Your task to perform on an android device: open the mobile data screen to see how much data has been used Image 0: 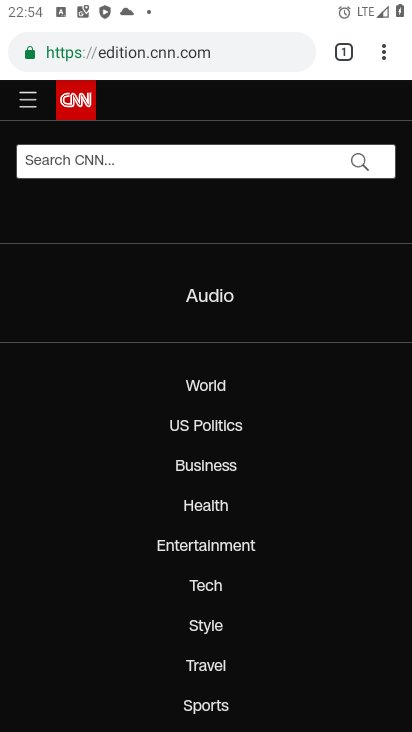
Step 0: press home button
Your task to perform on an android device: open the mobile data screen to see how much data has been used Image 1: 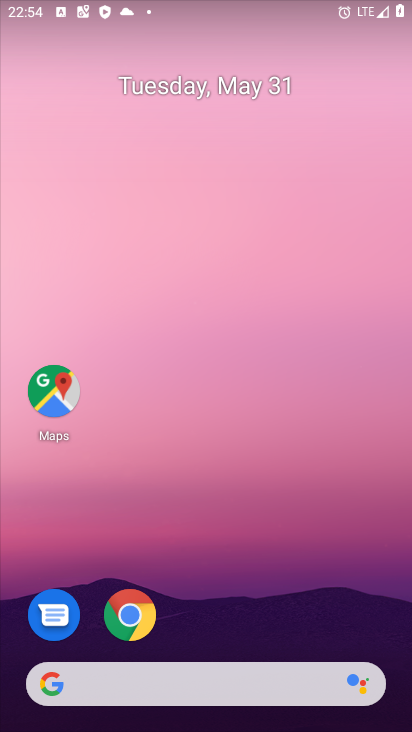
Step 1: drag from (258, 628) to (280, 25)
Your task to perform on an android device: open the mobile data screen to see how much data has been used Image 2: 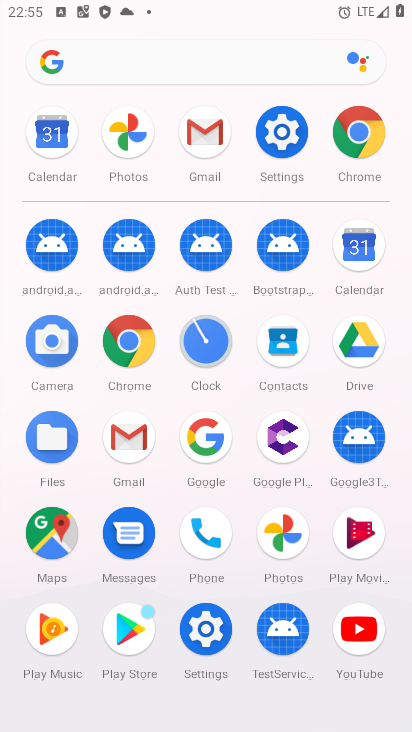
Step 2: click (206, 632)
Your task to perform on an android device: open the mobile data screen to see how much data has been used Image 3: 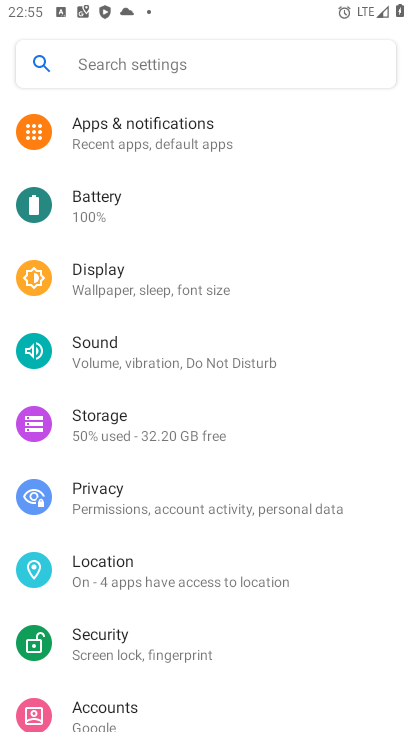
Step 3: drag from (313, 199) to (267, 450)
Your task to perform on an android device: open the mobile data screen to see how much data has been used Image 4: 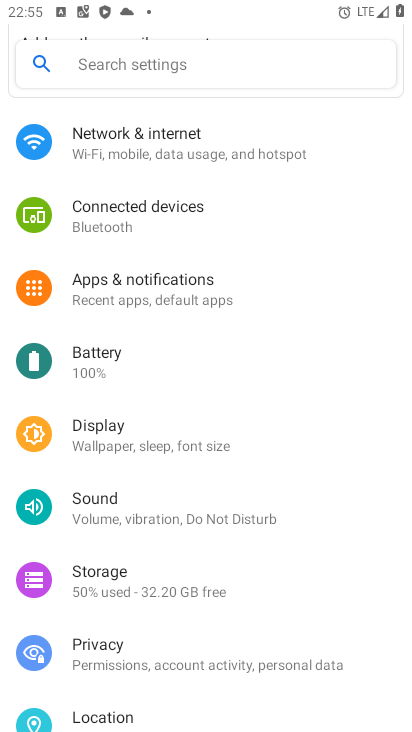
Step 4: click (117, 138)
Your task to perform on an android device: open the mobile data screen to see how much data has been used Image 5: 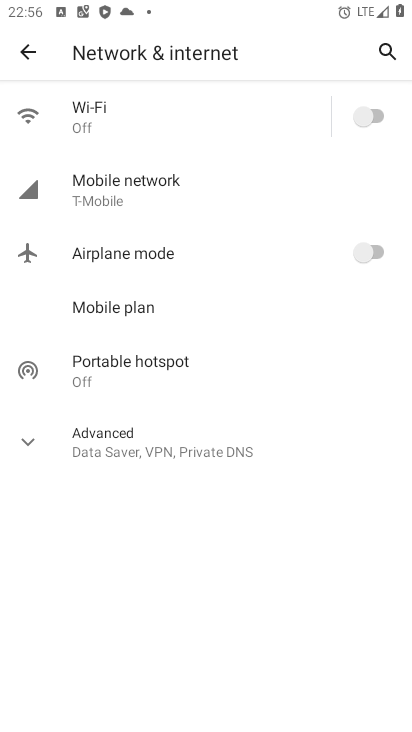
Step 5: click (115, 193)
Your task to perform on an android device: open the mobile data screen to see how much data has been used Image 6: 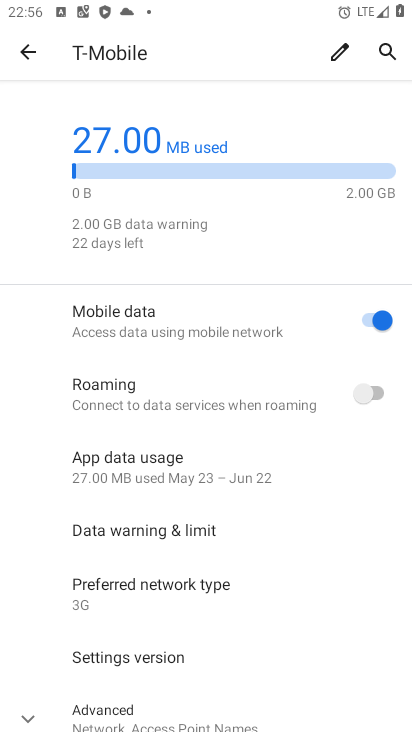
Step 6: task complete